Your task to perform on an android device: Open Yahoo.com Image 0: 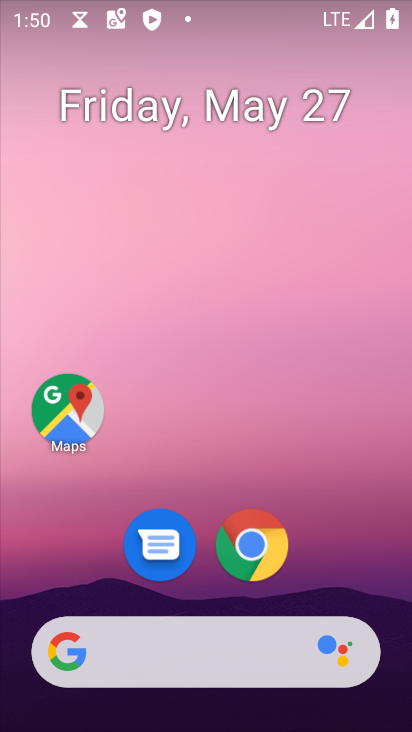
Step 0: click (247, 547)
Your task to perform on an android device: Open Yahoo.com Image 1: 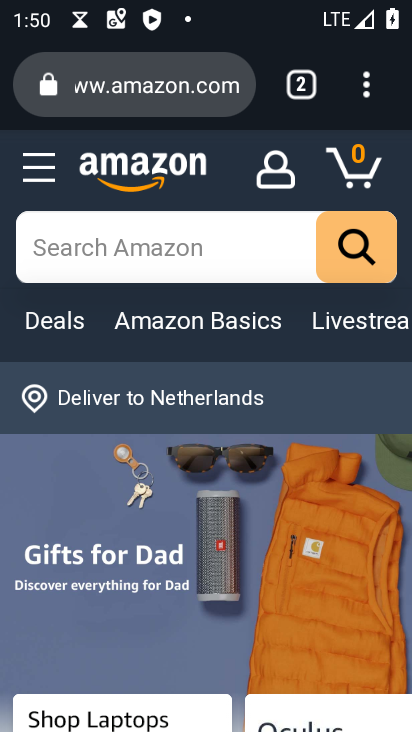
Step 1: click (299, 83)
Your task to perform on an android device: Open Yahoo.com Image 2: 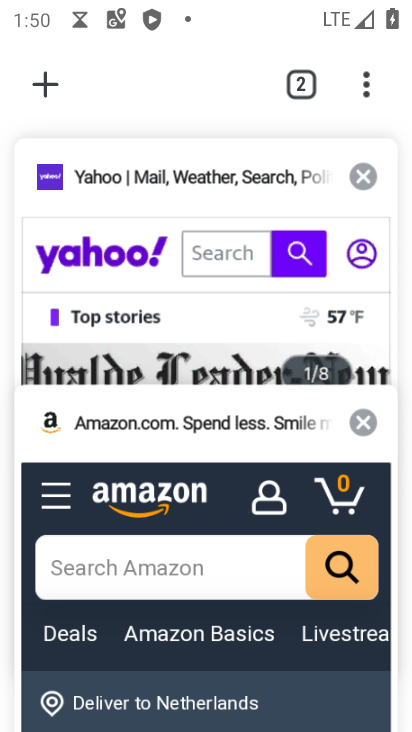
Step 2: click (146, 181)
Your task to perform on an android device: Open Yahoo.com Image 3: 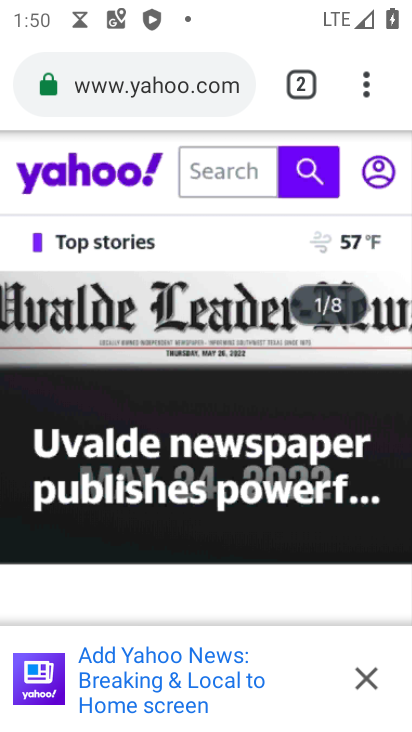
Step 3: task complete